Your task to perform on an android device: How much does a 3 bedroom apartment rent for in Austin? Image 0: 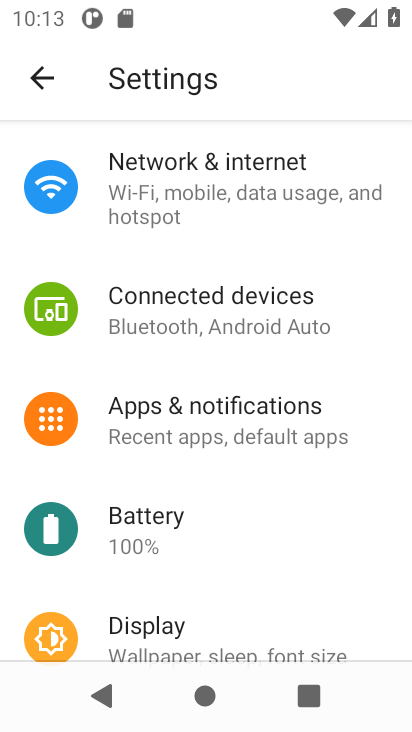
Step 0: press home button
Your task to perform on an android device: How much does a 3 bedroom apartment rent for in Austin? Image 1: 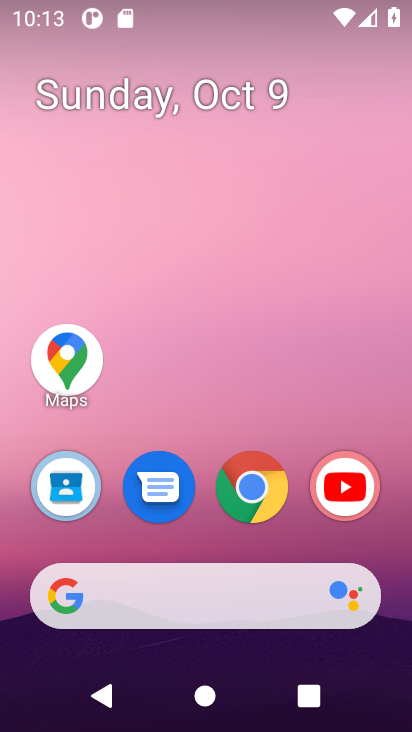
Step 1: click (237, 482)
Your task to perform on an android device: How much does a 3 bedroom apartment rent for in Austin? Image 2: 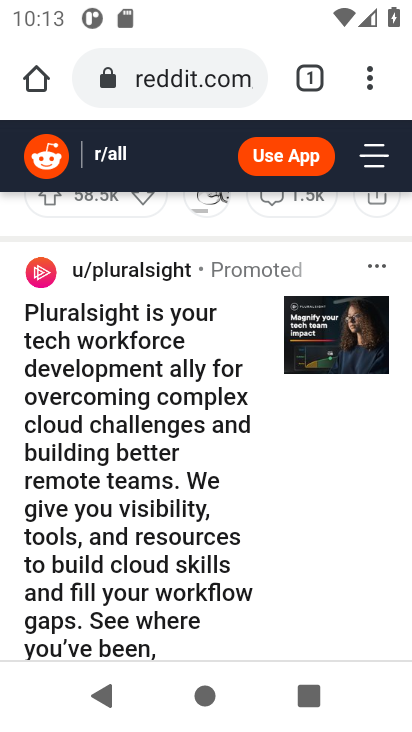
Step 2: click (148, 79)
Your task to perform on an android device: How much does a 3 bedroom apartment rent for in Austin? Image 3: 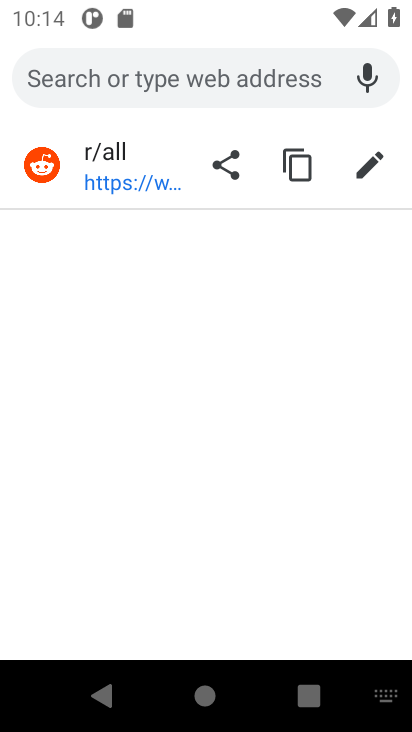
Step 3: type "3 bedroom apartment rent in Austin"
Your task to perform on an android device: How much does a 3 bedroom apartment rent for in Austin? Image 4: 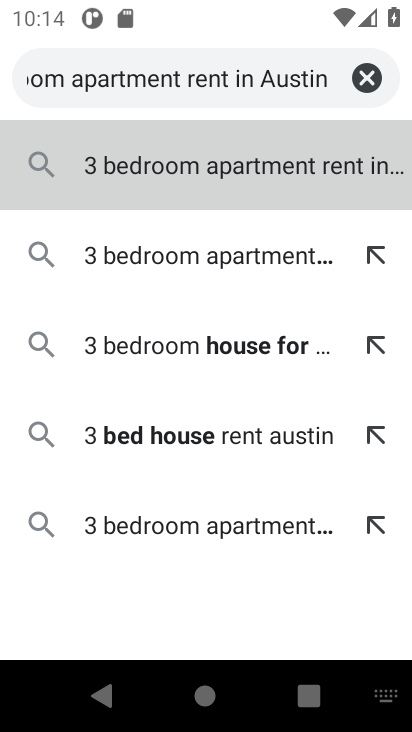
Step 4: press enter
Your task to perform on an android device: How much does a 3 bedroom apartment rent for in Austin? Image 5: 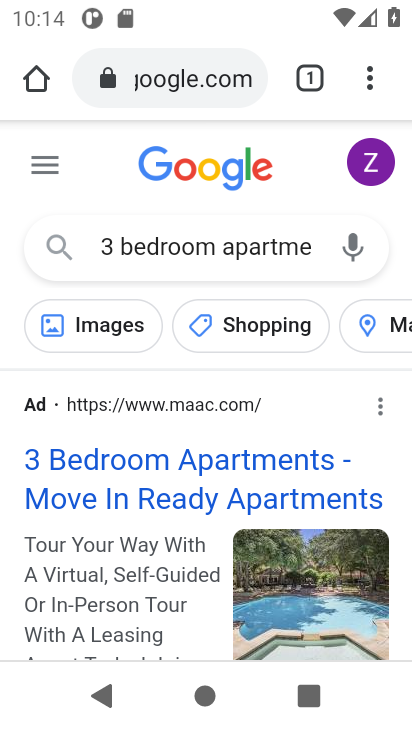
Step 5: drag from (126, 619) to (148, 313)
Your task to perform on an android device: How much does a 3 bedroom apartment rent for in Austin? Image 6: 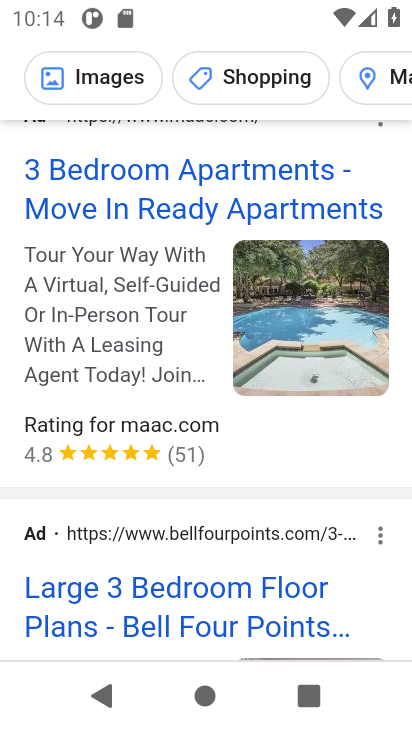
Step 6: drag from (159, 494) to (152, 247)
Your task to perform on an android device: How much does a 3 bedroom apartment rent for in Austin? Image 7: 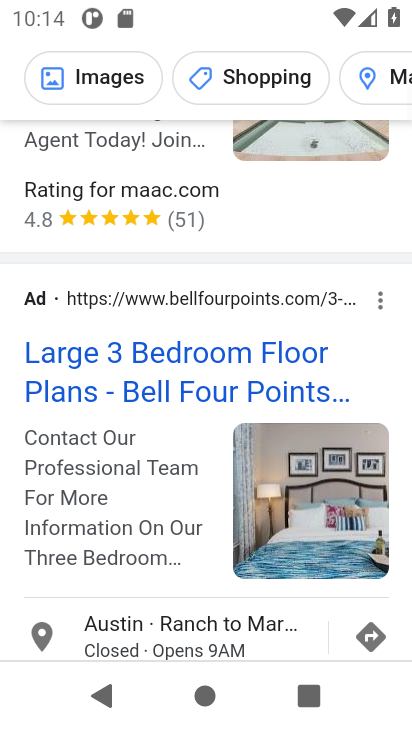
Step 7: drag from (170, 505) to (168, 266)
Your task to perform on an android device: How much does a 3 bedroom apartment rent for in Austin? Image 8: 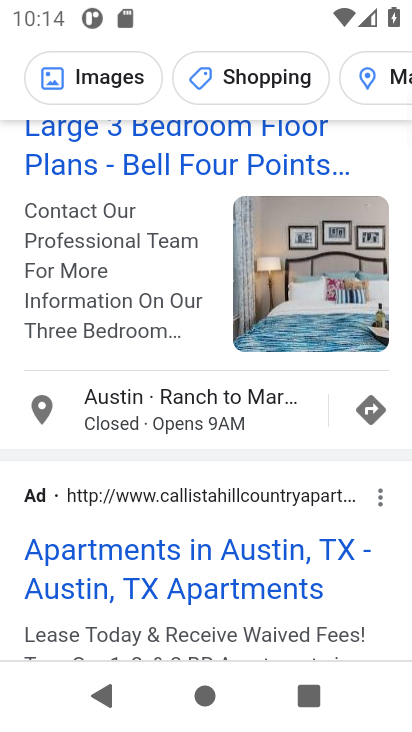
Step 8: drag from (210, 503) to (217, 260)
Your task to perform on an android device: How much does a 3 bedroom apartment rent for in Austin? Image 9: 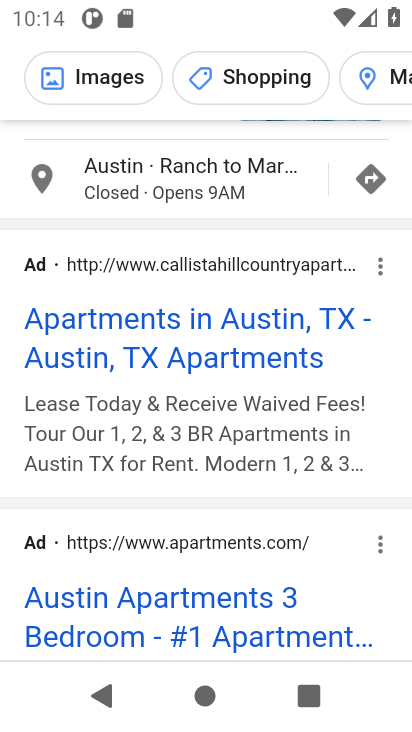
Step 9: drag from (244, 552) to (227, 287)
Your task to perform on an android device: How much does a 3 bedroom apartment rent for in Austin? Image 10: 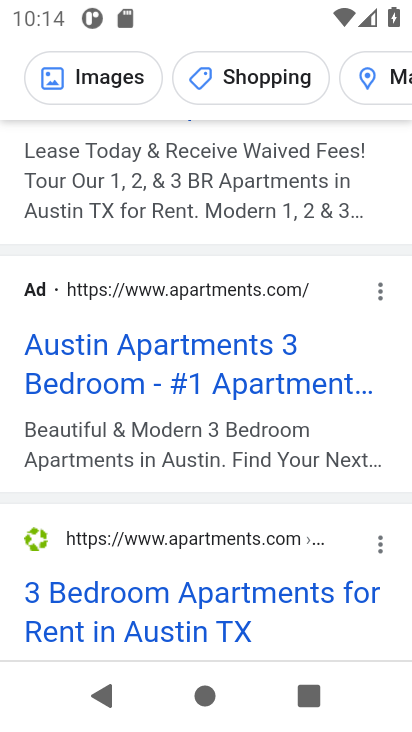
Step 10: click (184, 386)
Your task to perform on an android device: How much does a 3 bedroom apartment rent for in Austin? Image 11: 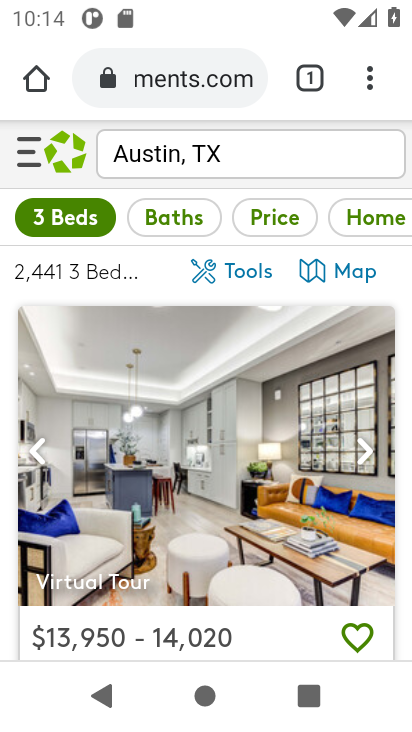
Step 11: task complete